Your task to perform on an android device: toggle improve location accuracy Image 0: 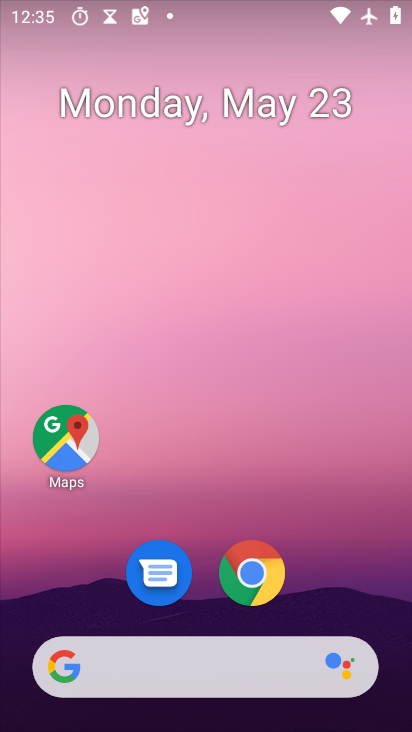
Step 0: press home button
Your task to perform on an android device: toggle improve location accuracy Image 1: 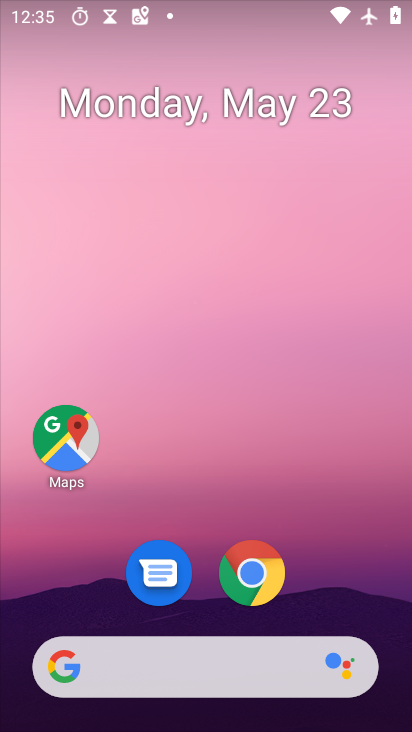
Step 1: drag from (121, 668) to (182, 92)
Your task to perform on an android device: toggle improve location accuracy Image 2: 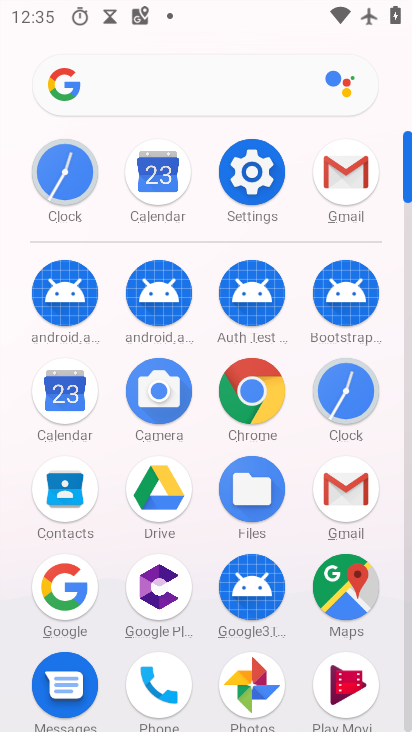
Step 2: click (248, 185)
Your task to perform on an android device: toggle improve location accuracy Image 3: 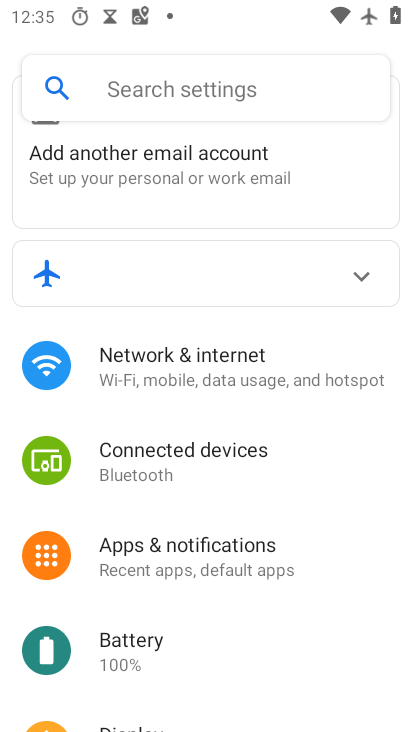
Step 3: drag from (238, 641) to (279, 17)
Your task to perform on an android device: toggle improve location accuracy Image 4: 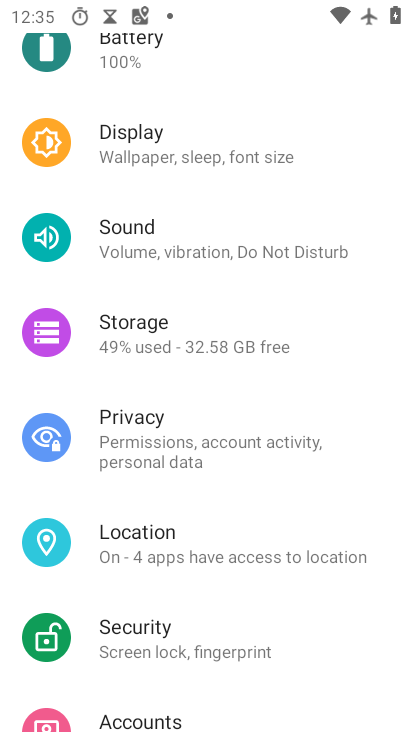
Step 4: click (157, 538)
Your task to perform on an android device: toggle improve location accuracy Image 5: 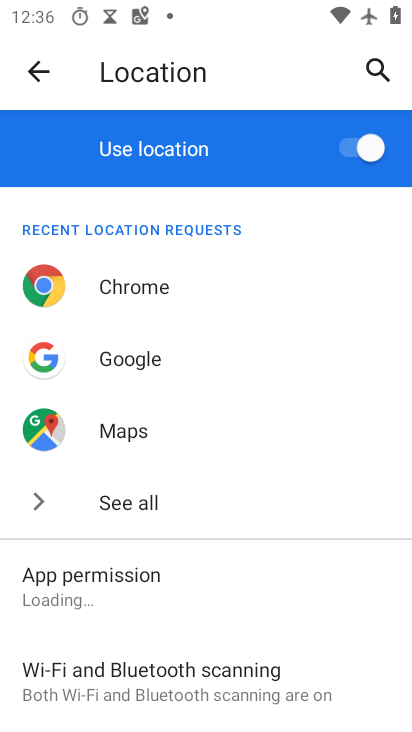
Step 5: drag from (194, 564) to (290, 33)
Your task to perform on an android device: toggle improve location accuracy Image 6: 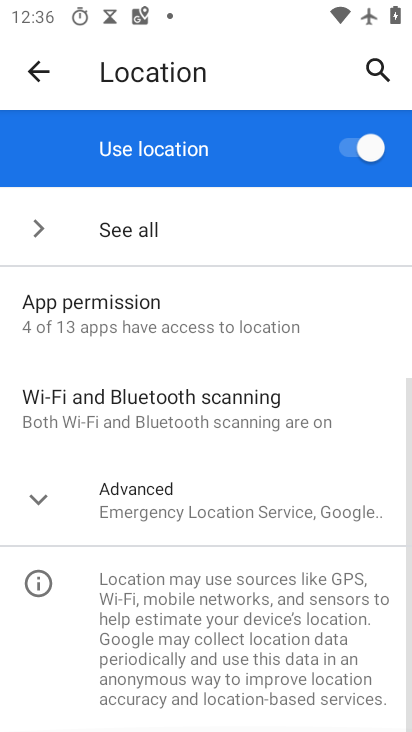
Step 6: click (156, 492)
Your task to perform on an android device: toggle improve location accuracy Image 7: 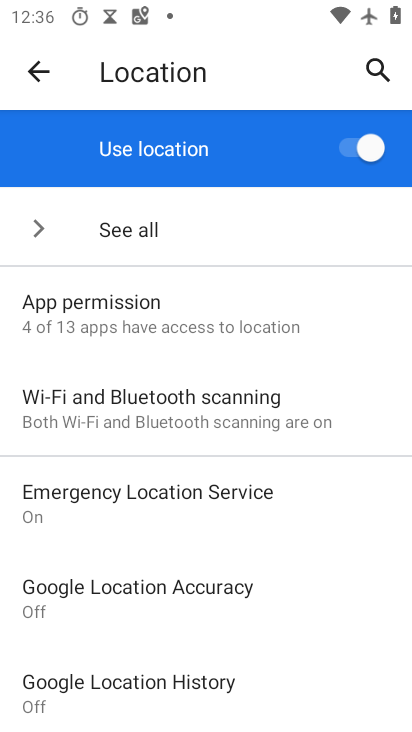
Step 7: click (168, 593)
Your task to perform on an android device: toggle improve location accuracy Image 8: 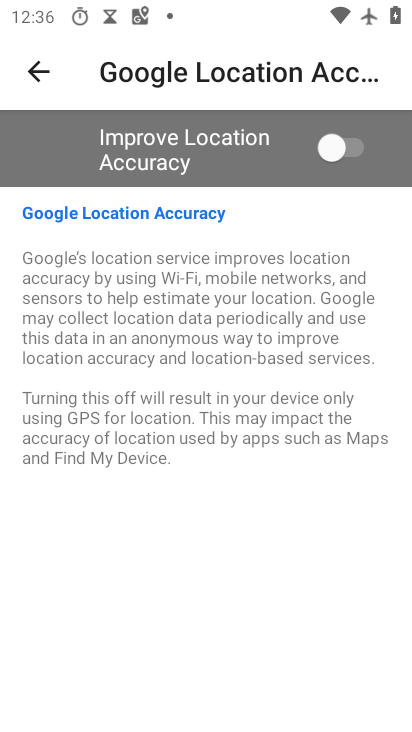
Step 8: click (349, 148)
Your task to perform on an android device: toggle improve location accuracy Image 9: 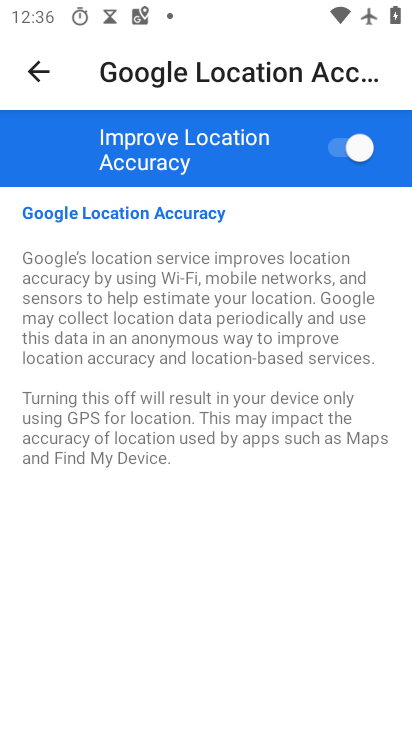
Step 9: task complete